Your task to perform on an android device: turn off improve location accuracy Image 0: 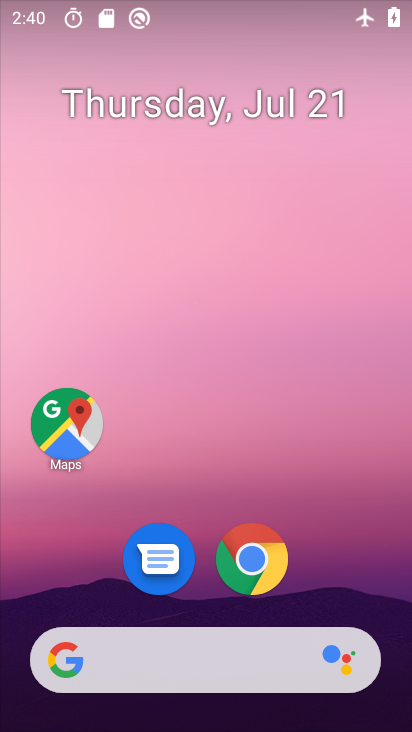
Step 0: drag from (352, 560) to (356, 52)
Your task to perform on an android device: turn off improve location accuracy Image 1: 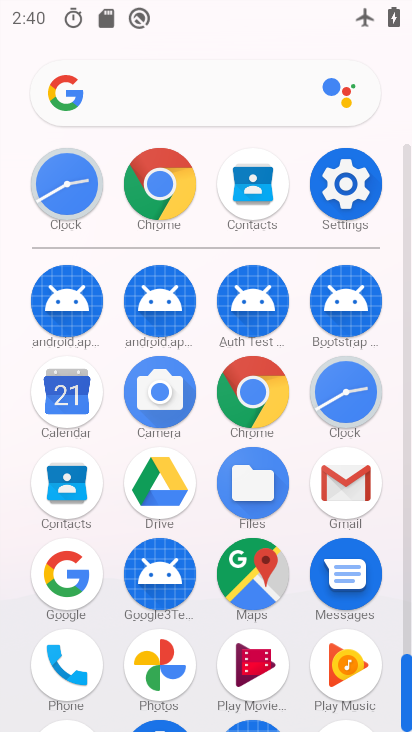
Step 1: click (358, 179)
Your task to perform on an android device: turn off improve location accuracy Image 2: 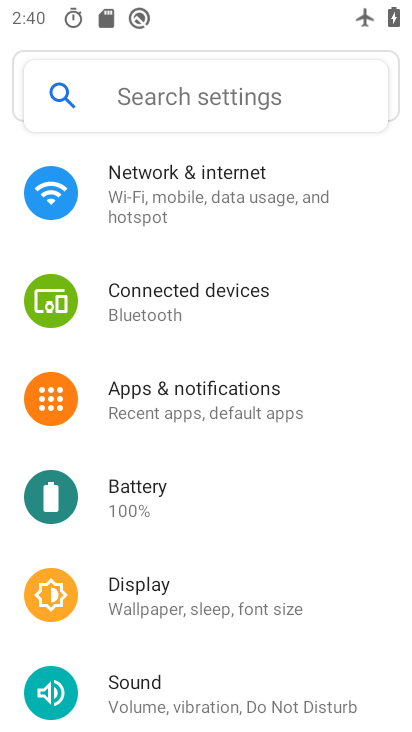
Step 2: drag from (339, 377) to (342, 254)
Your task to perform on an android device: turn off improve location accuracy Image 3: 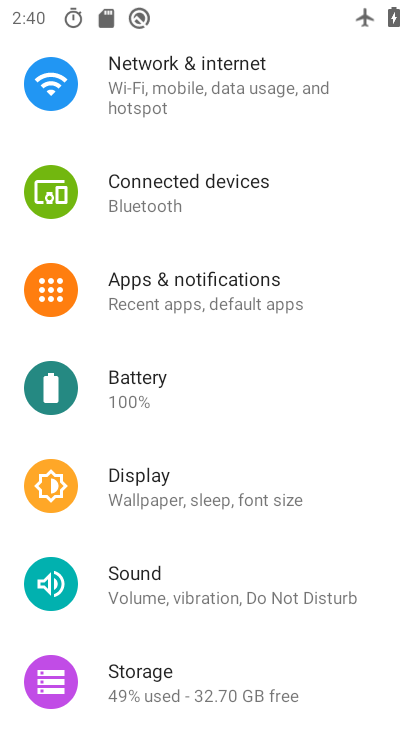
Step 3: drag from (355, 405) to (355, 264)
Your task to perform on an android device: turn off improve location accuracy Image 4: 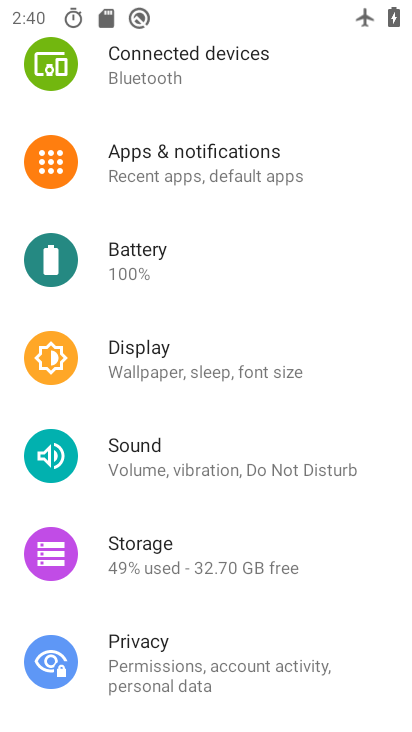
Step 4: drag from (328, 529) to (343, 419)
Your task to perform on an android device: turn off improve location accuracy Image 5: 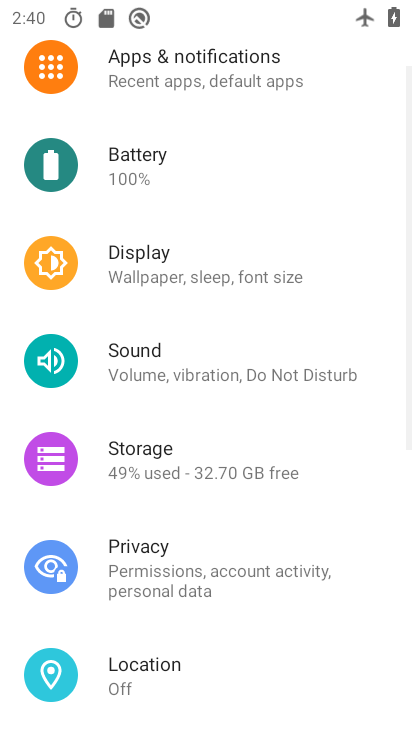
Step 5: drag from (350, 517) to (355, 384)
Your task to perform on an android device: turn off improve location accuracy Image 6: 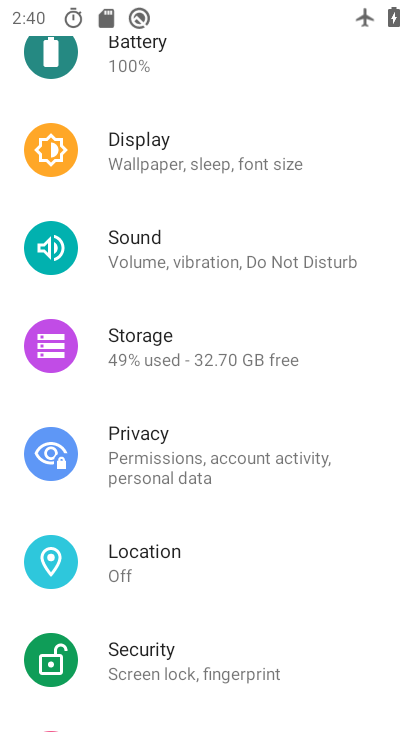
Step 6: drag from (347, 544) to (344, 441)
Your task to perform on an android device: turn off improve location accuracy Image 7: 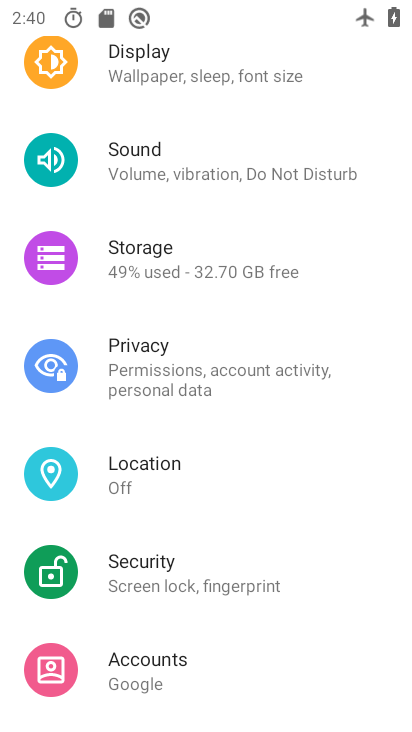
Step 7: drag from (330, 545) to (336, 361)
Your task to perform on an android device: turn off improve location accuracy Image 8: 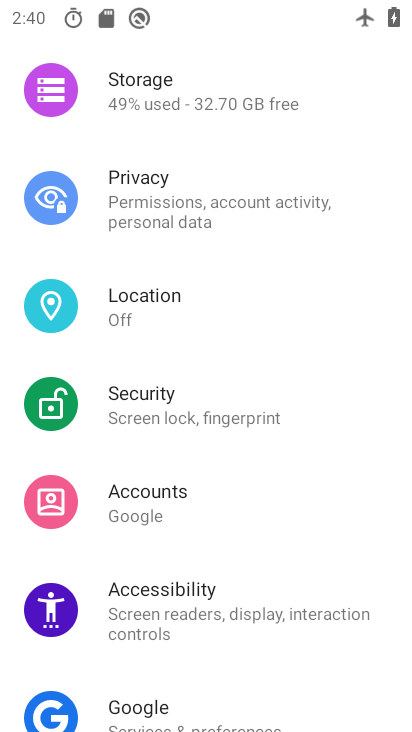
Step 8: drag from (344, 291) to (347, 405)
Your task to perform on an android device: turn off improve location accuracy Image 9: 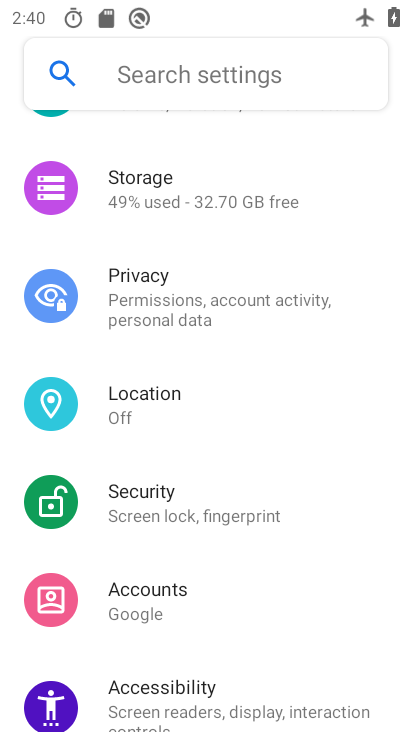
Step 9: click (309, 397)
Your task to perform on an android device: turn off improve location accuracy Image 10: 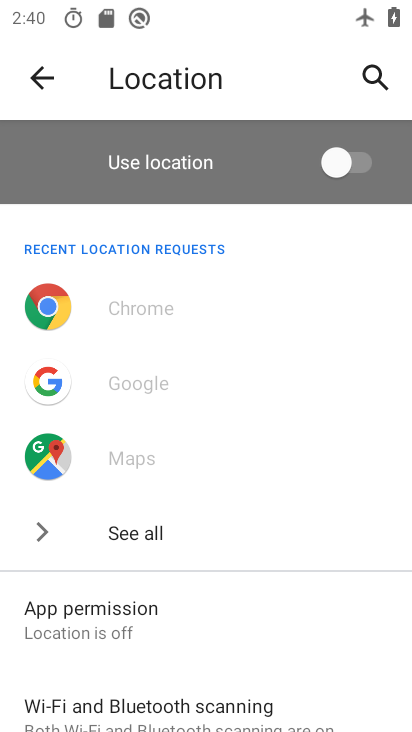
Step 10: drag from (330, 523) to (330, 437)
Your task to perform on an android device: turn off improve location accuracy Image 11: 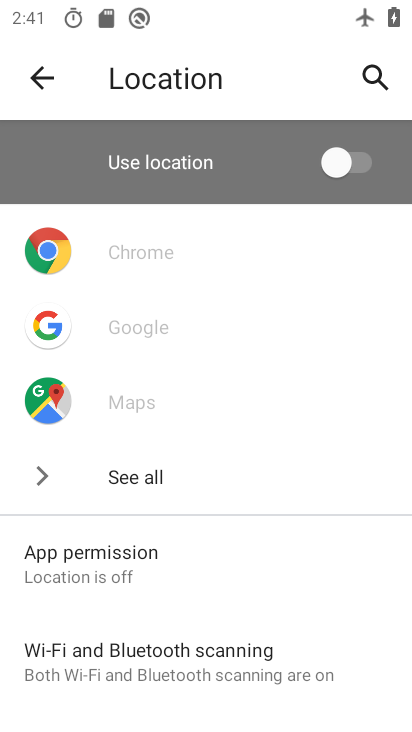
Step 11: drag from (330, 544) to (322, 430)
Your task to perform on an android device: turn off improve location accuracy Image 12: 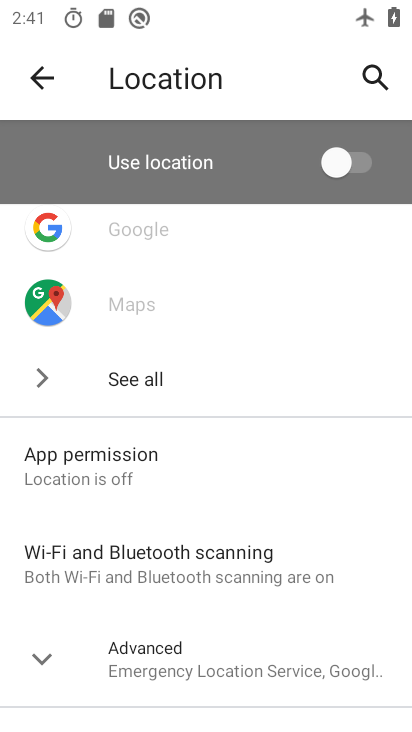
Step 12: drag from (337, 609) to (339, 405)
Your task to perform on an android device: turn off improve location accuracy Image 13: 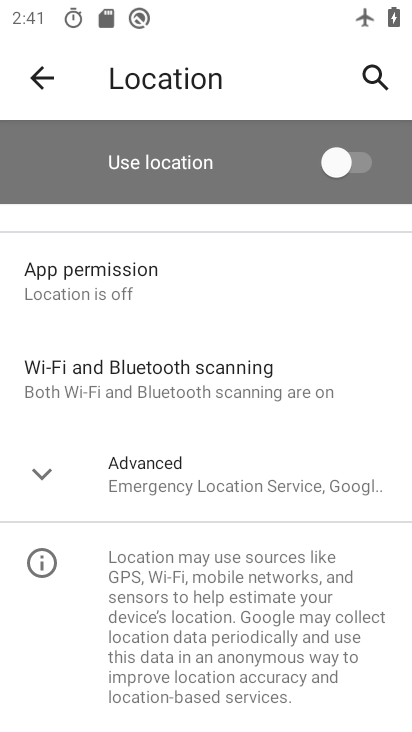
Step 13: click (262, 483)
Your task to perform on an android device: turn off improve location accuracy Image 14: 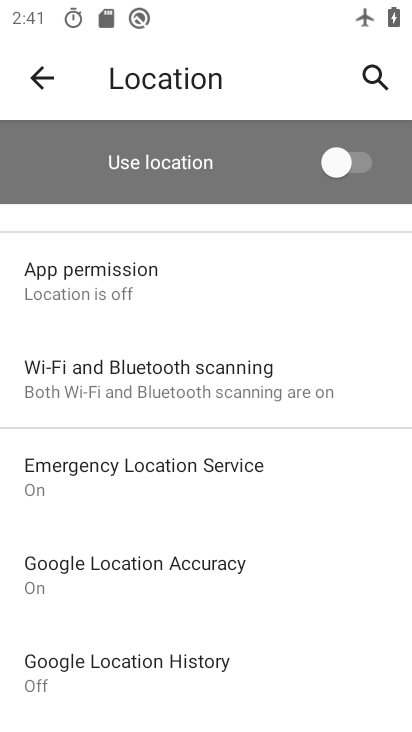
Step 14: task complete